Your task to perform on an android device: star an email in the gmail app Image 0: 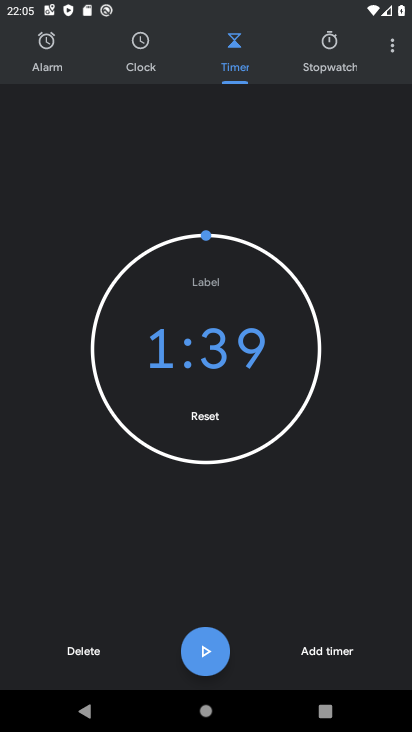
Step 0: press home button
Your task to perform on an android device: star an email in the gmail app Image 1: 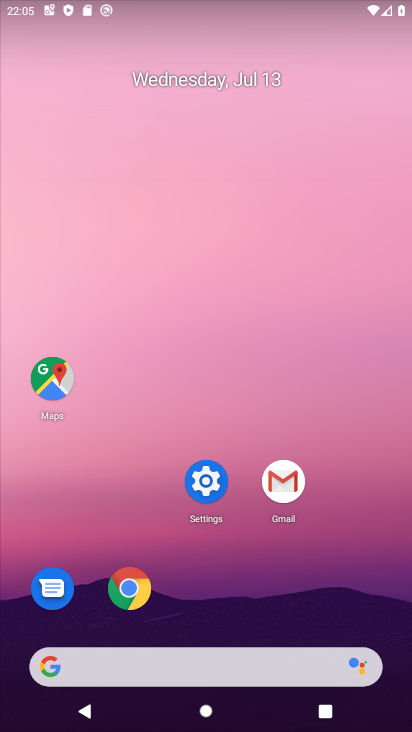
Step 1: click (274, 487)
Your task to perform on an android device: star an email in the gmail app Image 2: 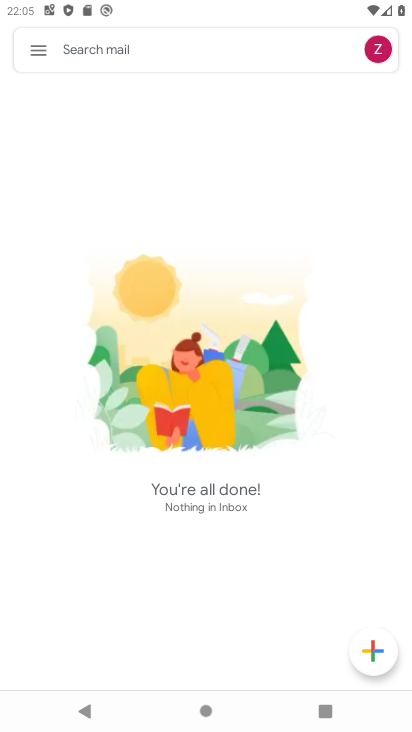
Step 2: task complete